Your task to perform on an android device: turn off location Image 0: 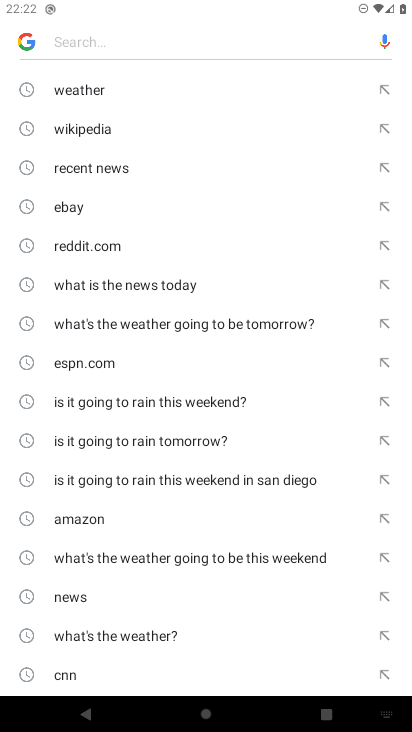
Step 0: press home button
Your task to perform on an android device: turn off location Image 1: 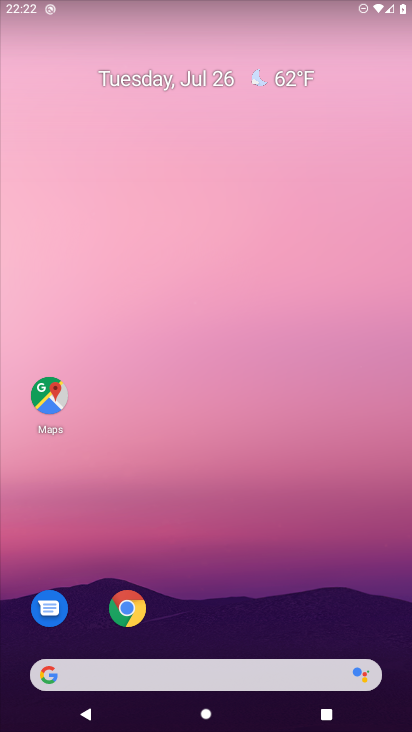
Step 1: drag from (124, 480) to (208, 32)
Your task to perform on an android device: turn off location Image 2: 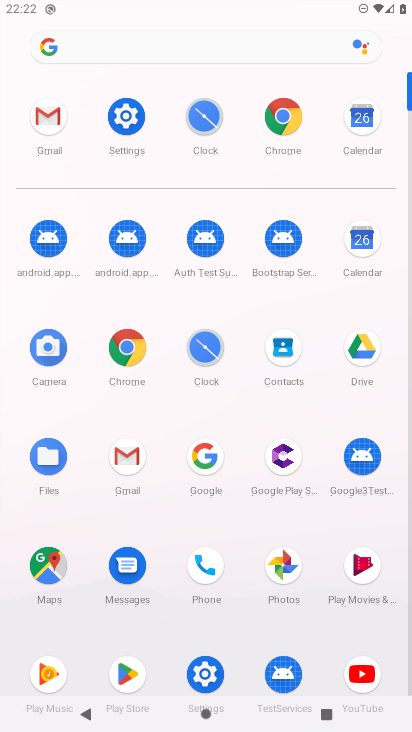
Step 2: click (212, 670)
Your task to perform on an android device: turn off location Image 3: 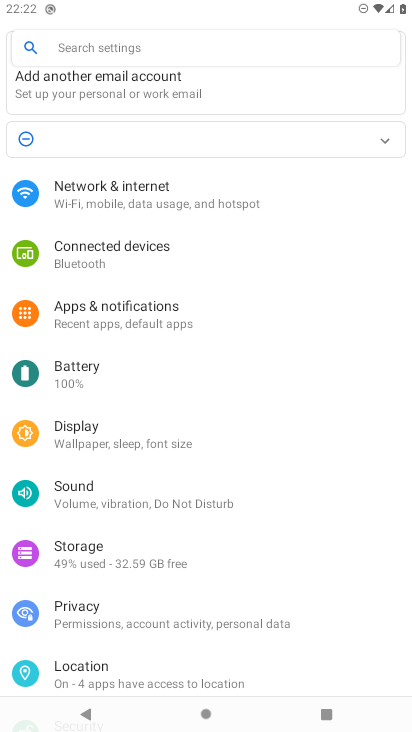
Step 3: click (87, 668)
Your task to perform on an android device: turn off location Image 4: 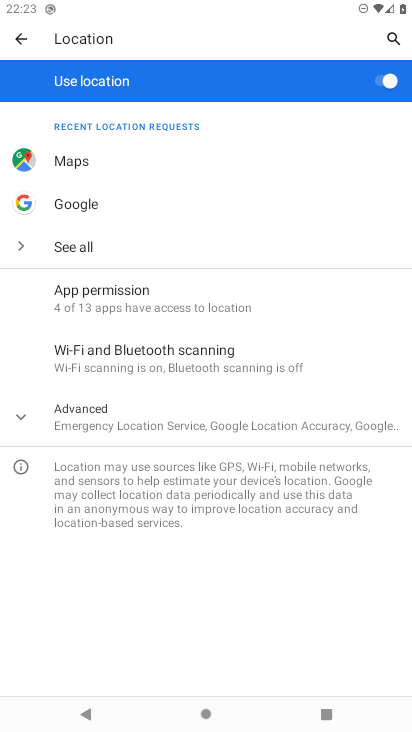
Step 4: click (89, 412)
Your task to perform on an android device: turn off location Image 5: 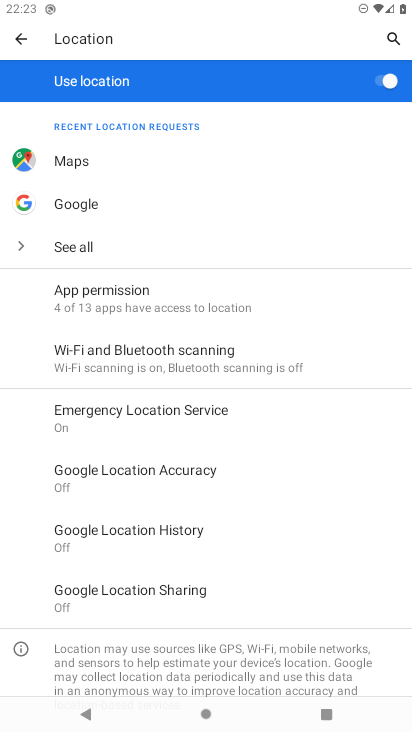
Step 5: click (397, 80)
Your task to perform on an android device: turn off location Image 6: 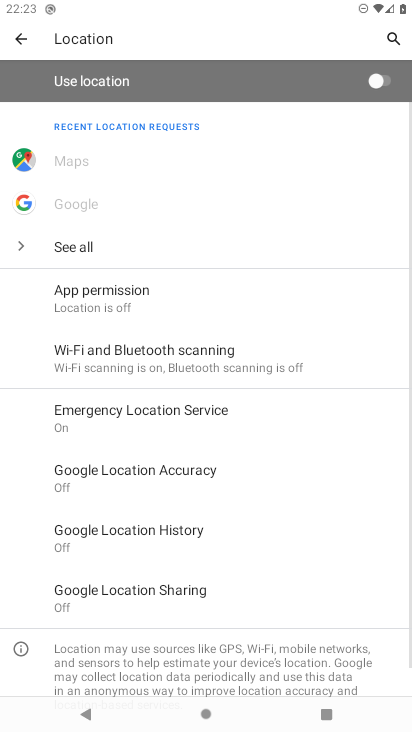
Step 6: task complete